Your task to perform on an android device: Go to settings Image 0: 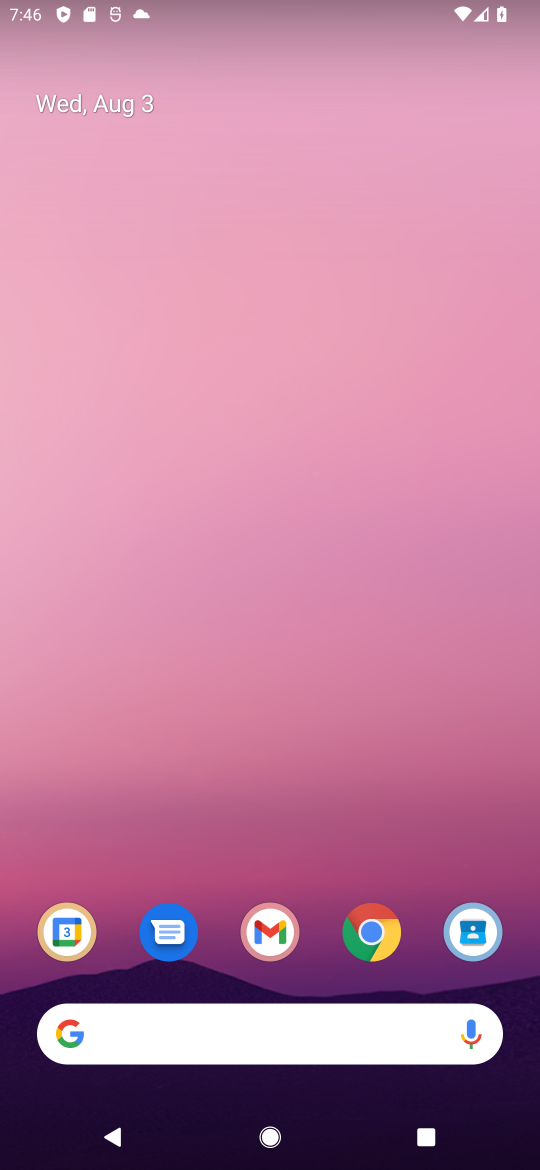
Step 0: drag from (272, 557) to (366, 122)
Your task to perform on an android device: Go to settings Image 1: 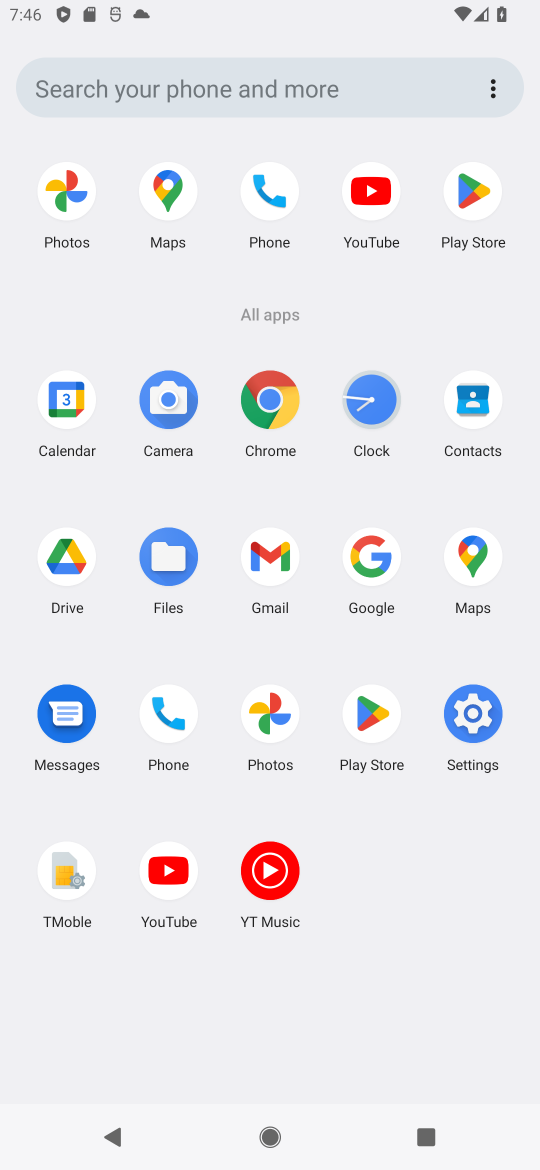
Step 1: click (472, 699)
Your task to perform on an android device: Go to settings Image 2: 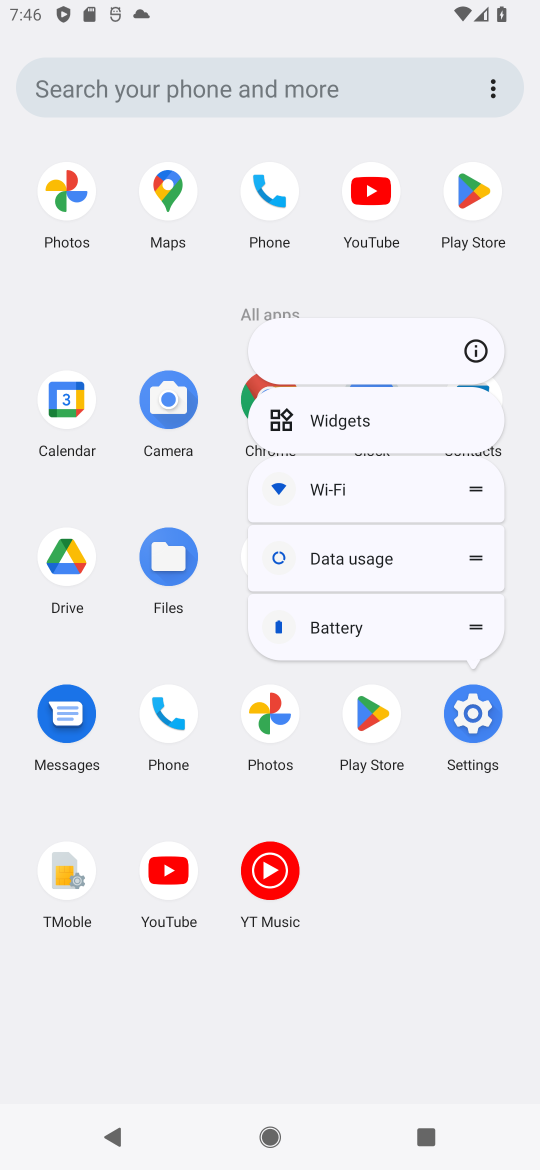
Step 2: click (472, 699)
Your task to perform on an android device: Go to settings Image 3: 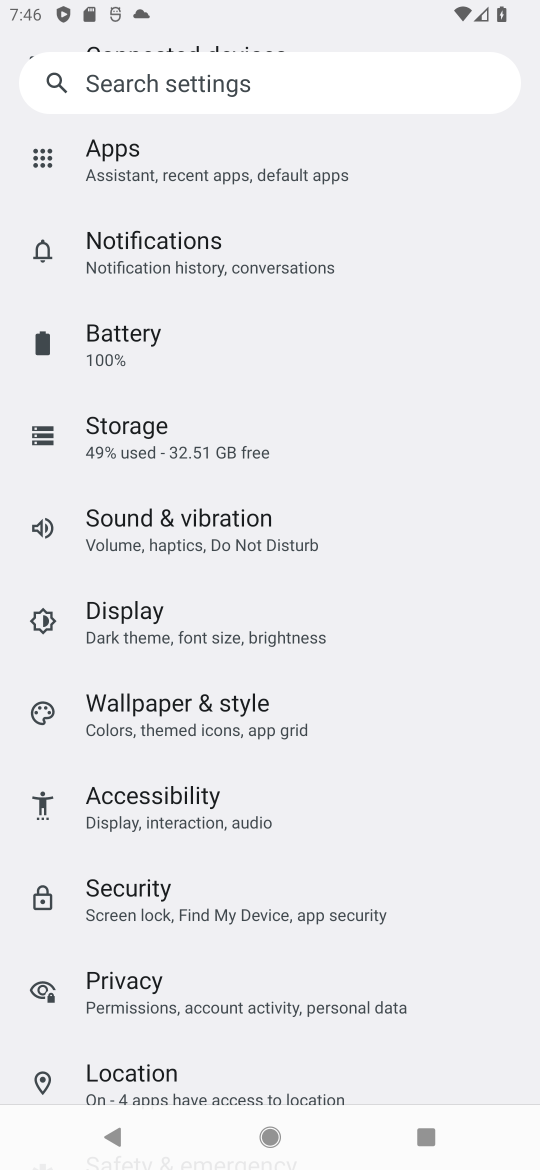
Step 3: task complete